Your task to perform on an android device: check battery use Image 0: 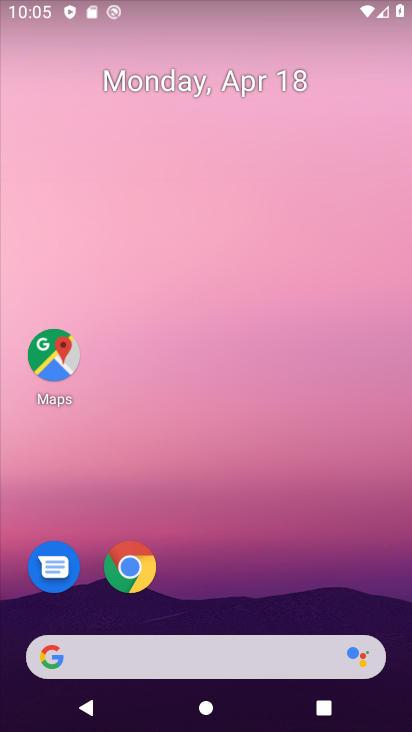
Step 0: drag from (226, 560) to (209, 67)
Your task to perform on an android device: check battery use Image 1: 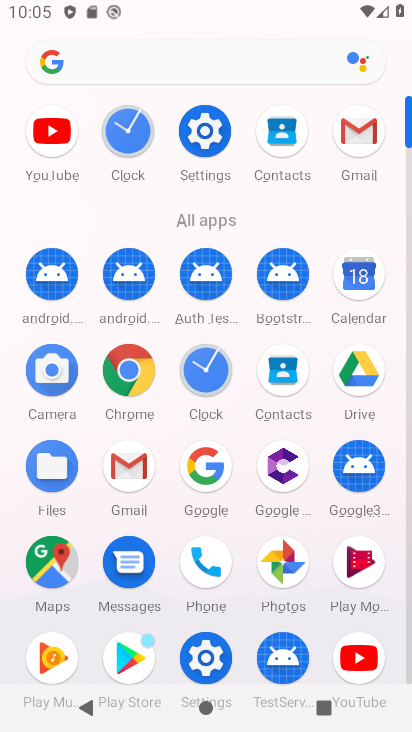
Step 1: click (207, 135)
Your task to perform on an android device: check battery use Image 2: 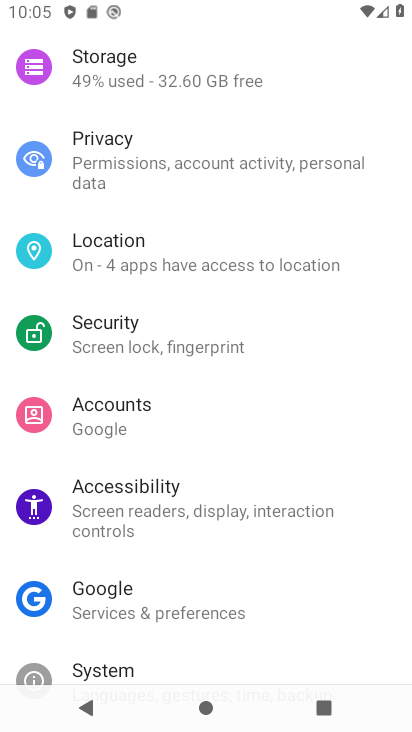
Step 2: drag from (164, 132) to (99, 625)
Your task to perform on an android device: check battery use Image 3: 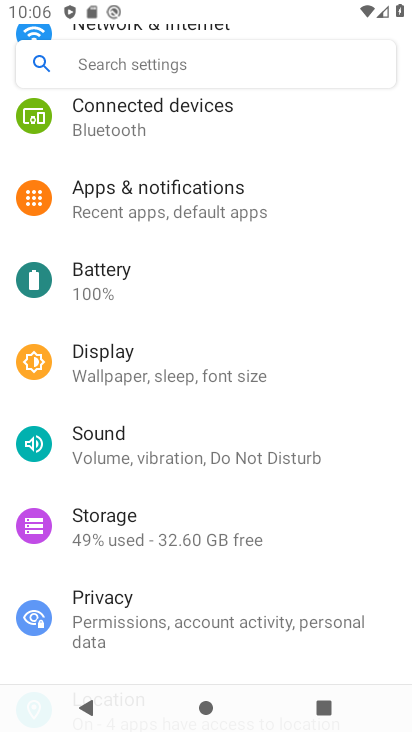
Step 3: click (86, 284)
Your task to perform on an android device: check battery use Image 4: 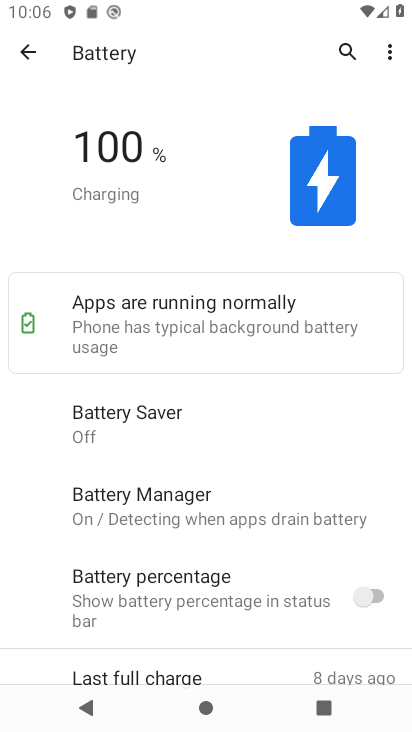
Step 4: click (325, 182)
Your task to perform on an android device: check battery use Image 5: 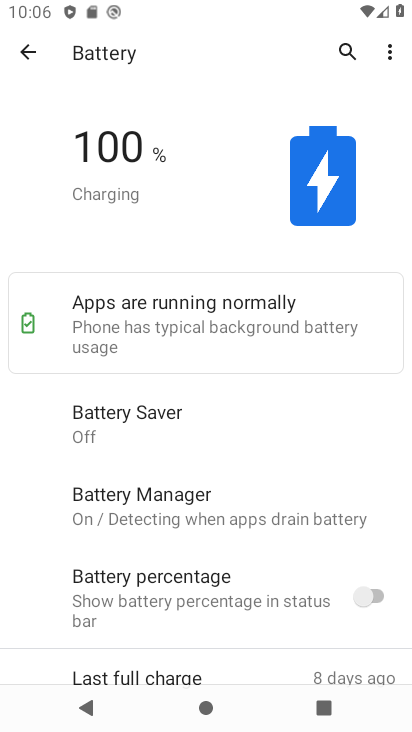
Step 5: click (117, 145)
Your task to perform on an android device: check battery use Image 6: 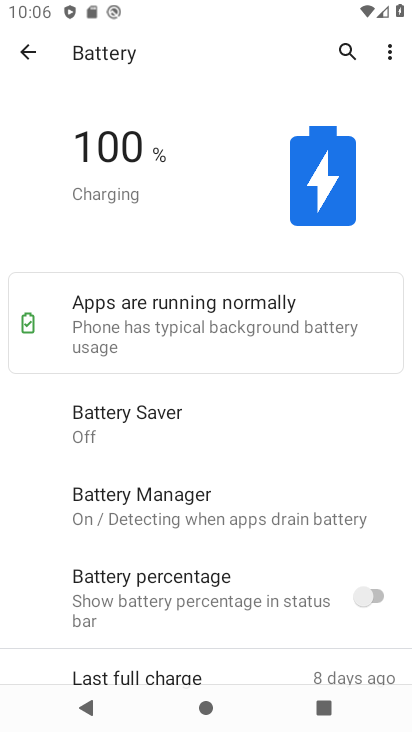
Step 6: task complete